Your task to perform on an android device: turn on wifi Image 0: 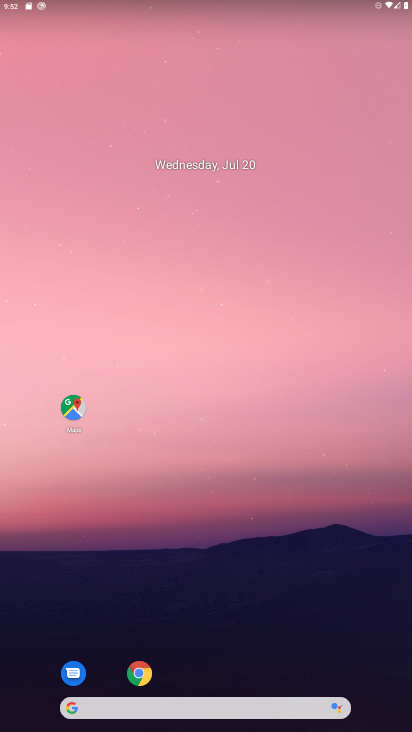
Step 0: drag from (180, 662) to (244, 137)
Your task to perform on an android device: turn on wifi Image 1: 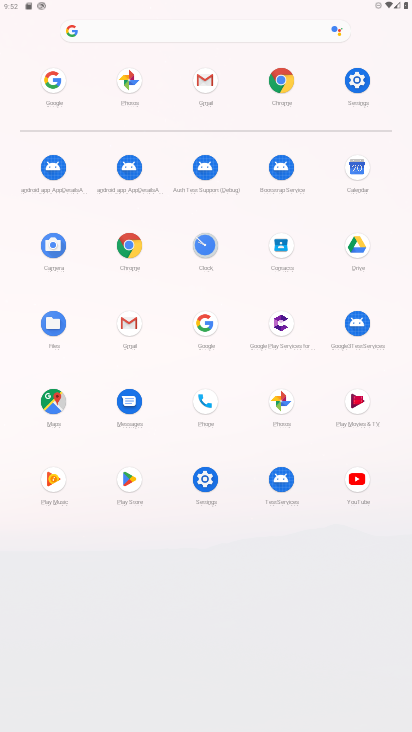
Step 1: click (353, 75)
Your task to perform on an android device: turn on wifi Image 2: 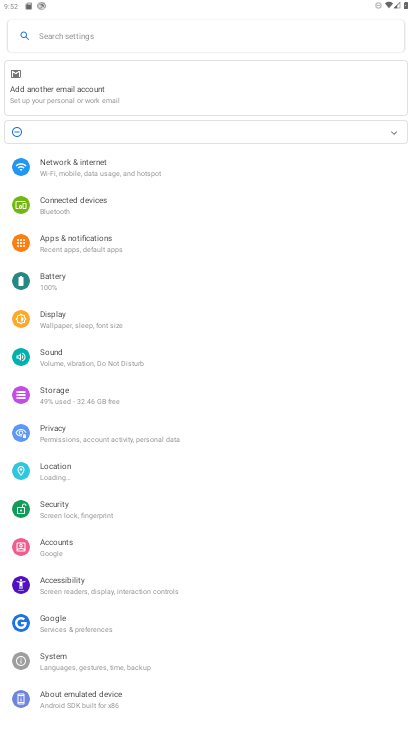
Step 2: click (89, 176)
Your task to perform on an android device: turn on wifi Image 3: 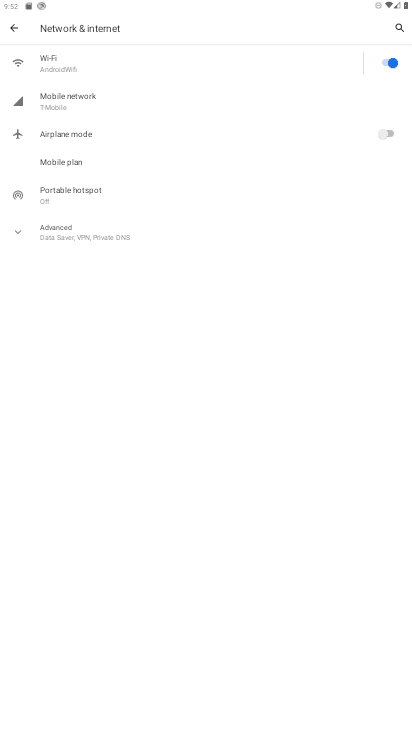
Step 3: click (102, 54)
Your task to perform on an android device: turn on wifi Image 4: 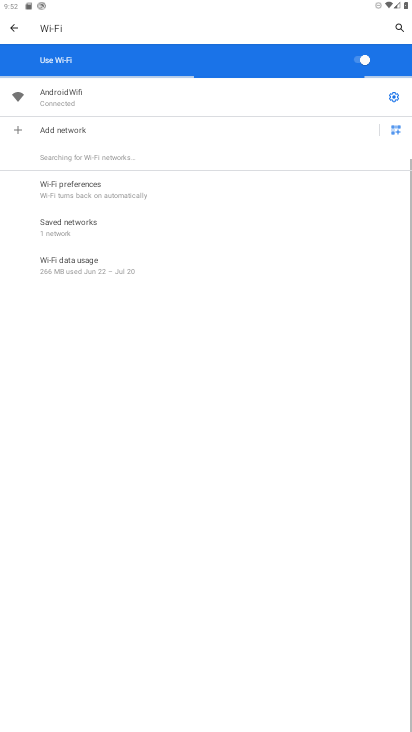
Step 4: task complete